Your task to perform on an android device: Open the calendar and show me this week's events Image 0: 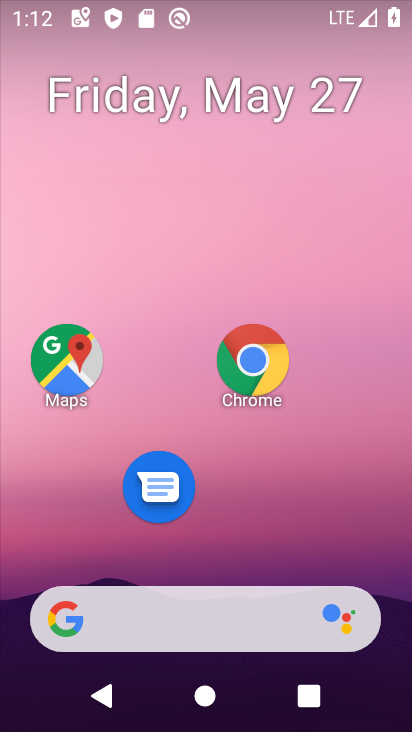
Step 0: drag from (240, 494) to (306, 96)
Your task to perform on an android device: Open the calendar and show me this week's events Image 1: 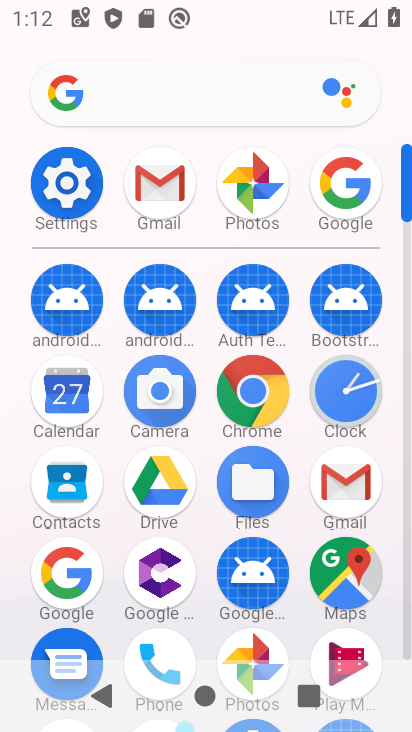
Step 1: click (53, 394)
Your task to perform on an android device: Open the calendar and show me this week's events Image 2: 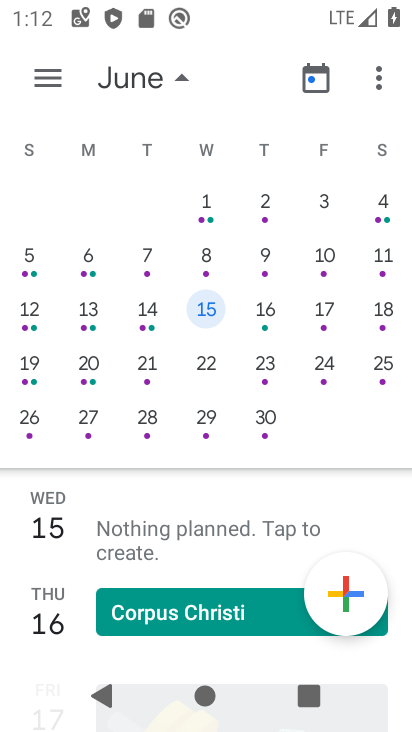
Step 2: drag from (46, 403) to (410, 364)
Your task to perform on an android device: Open the calendar and show me this week's events Image 3: 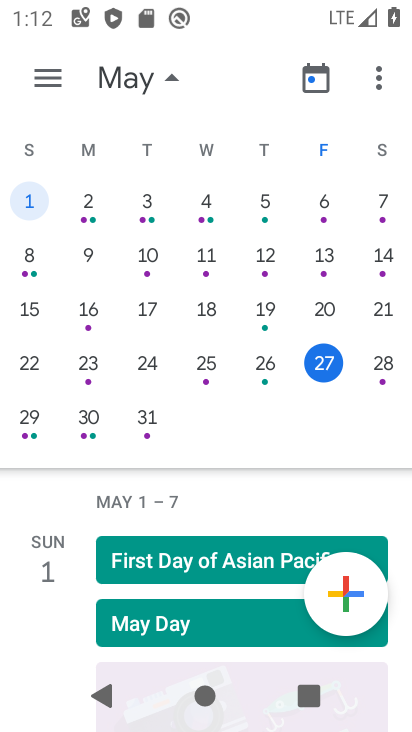
Step 3: click (382, 361)
Your task to perform on an android device: Open the calendar and show me this week's events Image 4: 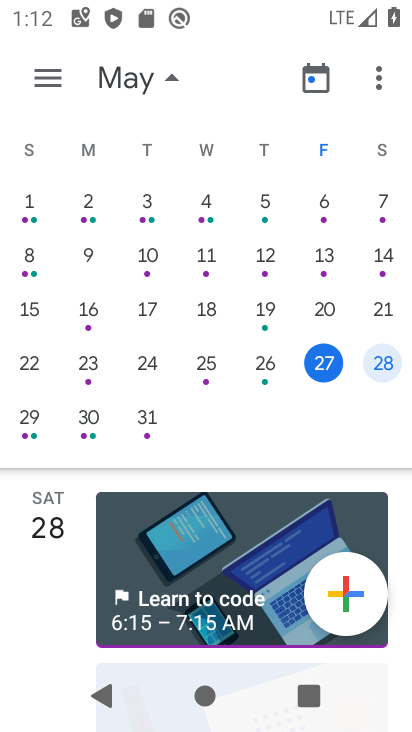
Step 4: task complete